Your task to perform on an android device: Go to privacy settings Image 0: 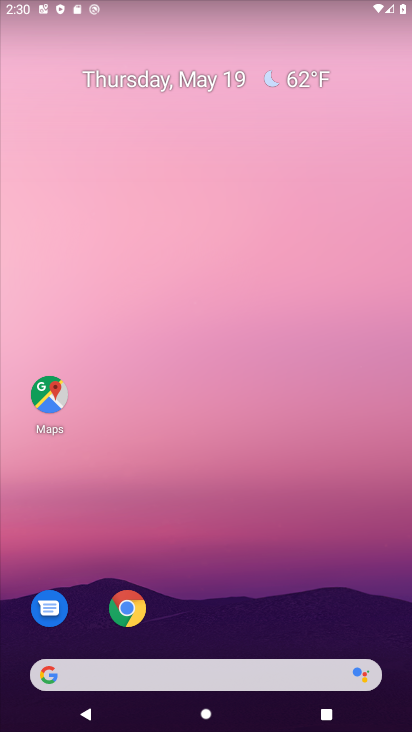
Step 0: drag from (191, 570) to (180, 528)
Your task to perform on an android device: Go to privacy settings Image 1: 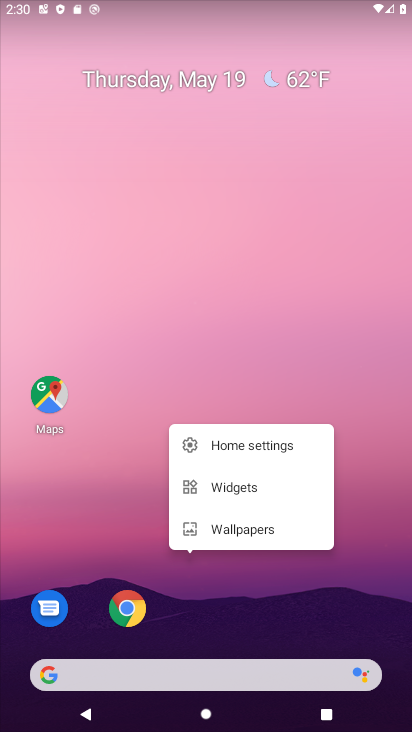
Step 1: click (179, 522)
Your task to perform on an android device: Go to privacy settings Image 2: 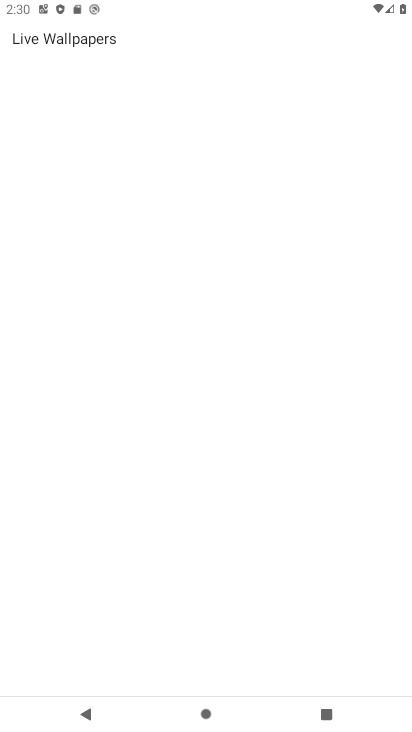
Step 2: click (117, 551)
Your task to perform on an android device: Go to privacy settings Image 3: 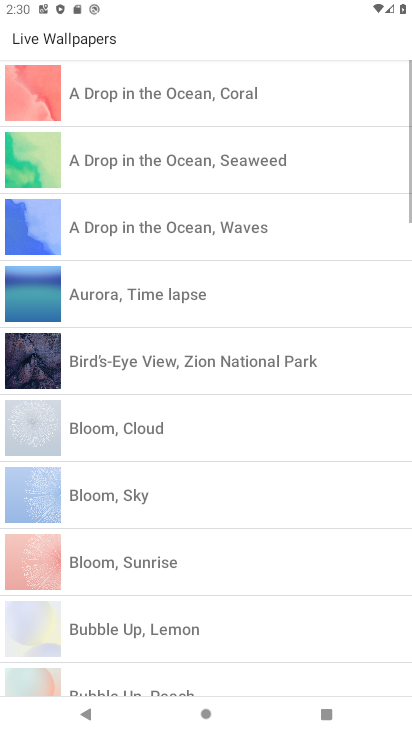
Step 3: press home button
Your task to perform on an android device: Go to privacy settings Image 4: 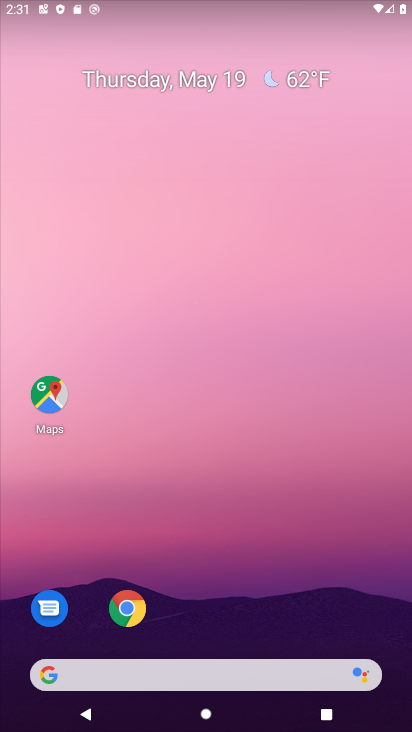
Step 4: drag from (317, 480) to (182, 5)
Your task to perform on an android device: Go to privacy settings Image 5: 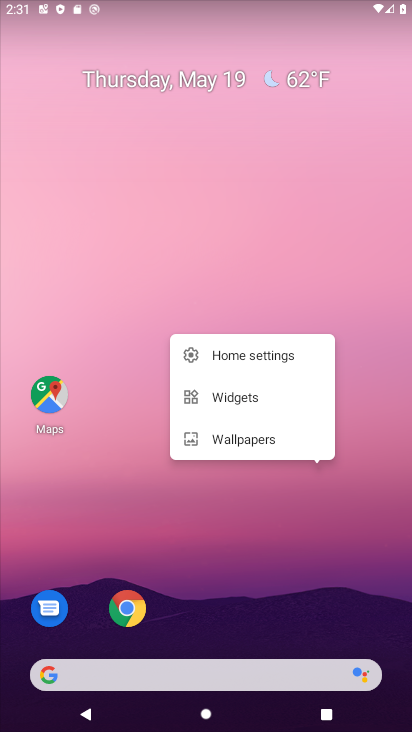
Step 5: click (181, 551)
Your task to perform on an android device: Go to privacy settings Image 6: 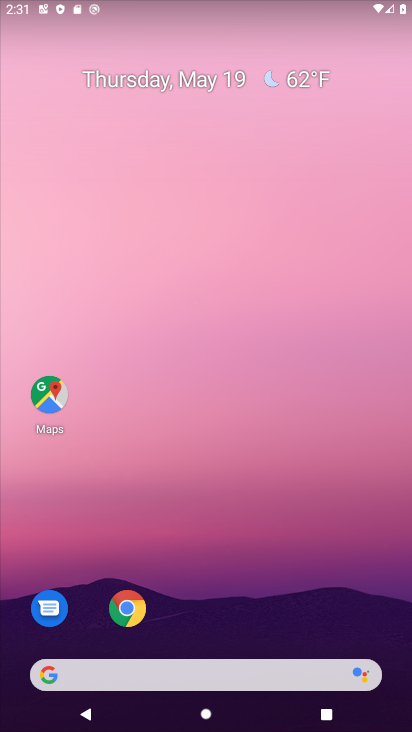
Step 6: drag from (181, 551) to (264, 17)
Your task to perform on an android device: Go to privacy settings Image 7: 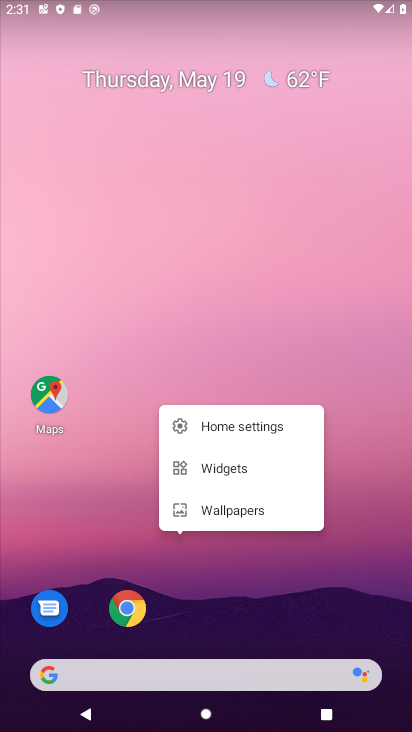
Step 7: click (276, 616)
Your task to perform on an android device: Go to privacy settings Image 8: 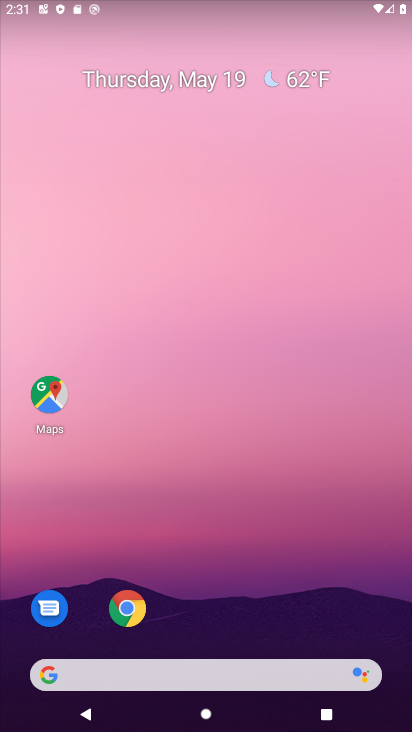
Step 8: click (276, 616)
Your task to perform on an android device: Go to privacy settings Image 9: 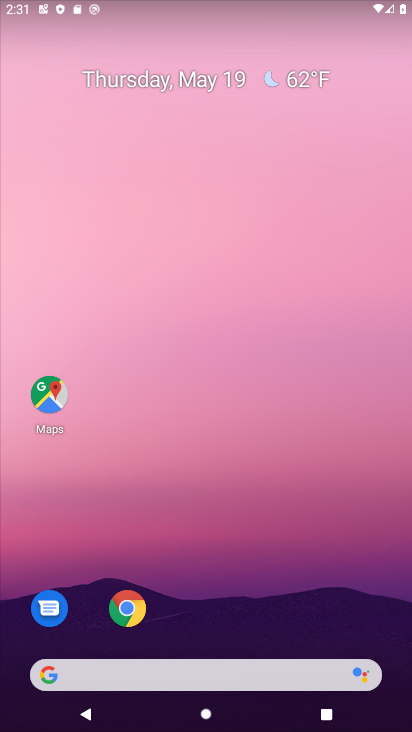
Step 9: drag from (276, 616) to (257, 192)
Your task to perform on an android device: Go to privacy settings Image 10: 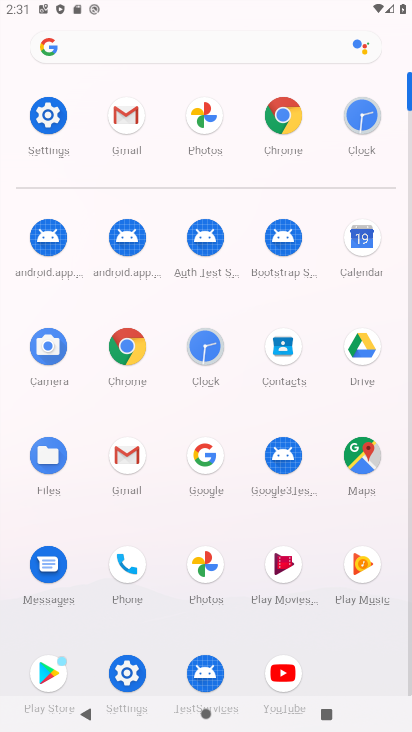
Step 10: click (52, 146)
Your task to perform on an android device: Go to privacy settings Image 11: 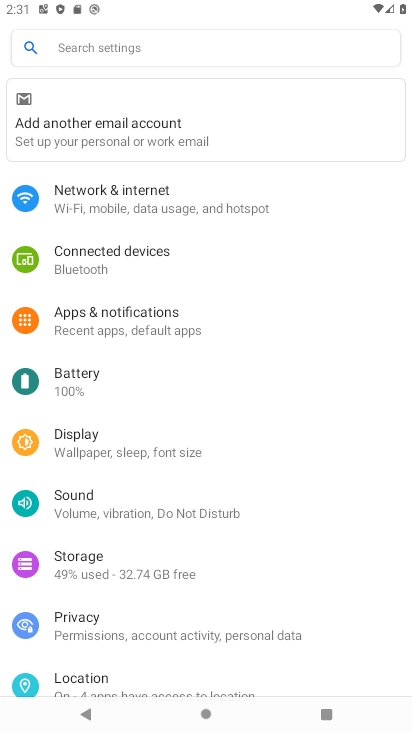
Step 11: click (150, 612)
Your task to perform on an android device: Go to privacy settings Image 12: 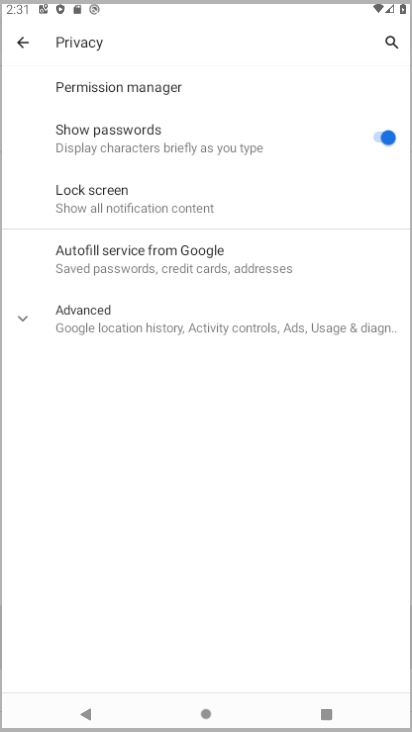
Step 12: task complete